Your task to perform on an android device: How big is the sun? Image 0: 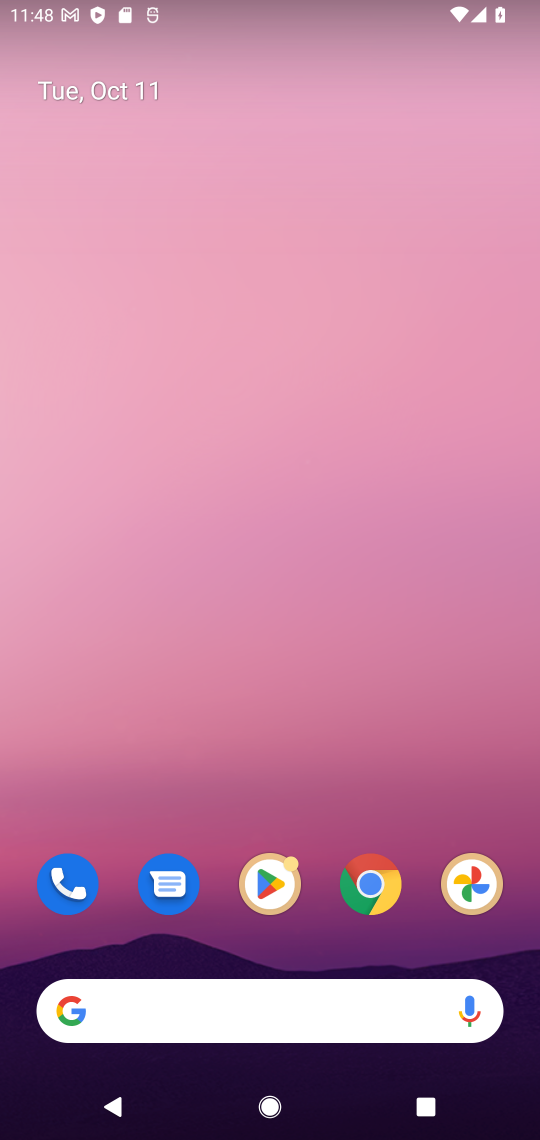
Step 0: drag from (313, 936) to (299, 167)
Your task to perform on an android device: How big is the sun? Image 1: 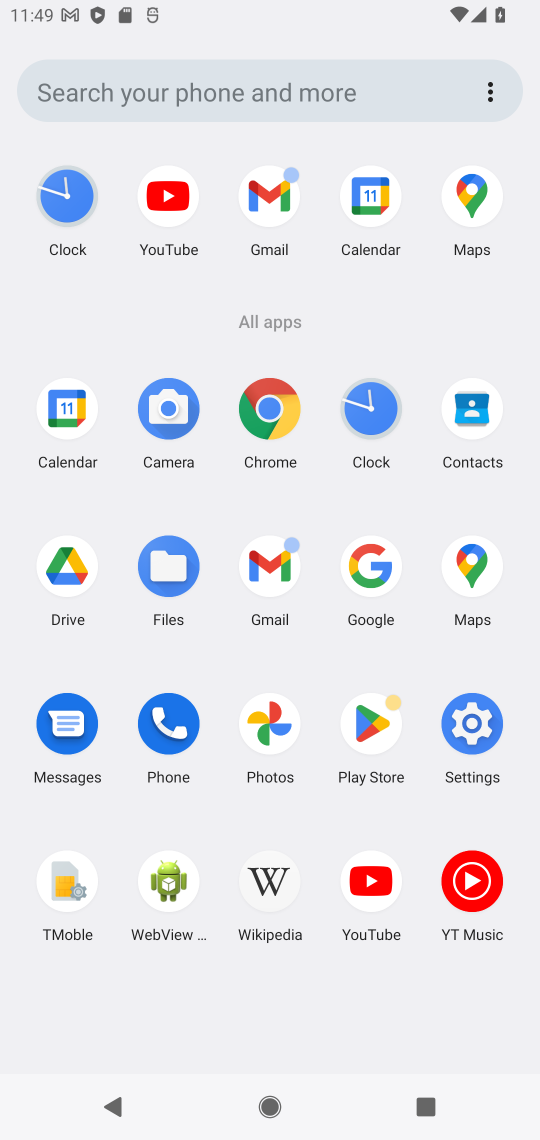
Step 1: click (366, 566)
Your task to perform on an android device: How big is the sun? Image 2: 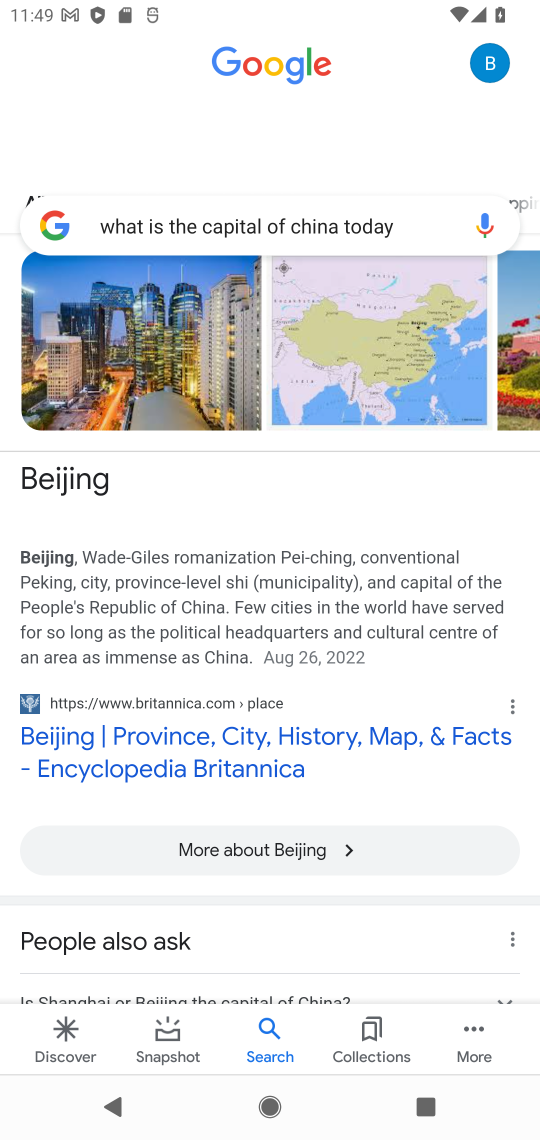
Step 2: click (284, 222)
Your task to perform on an android device: How big is the sun? Image 3: 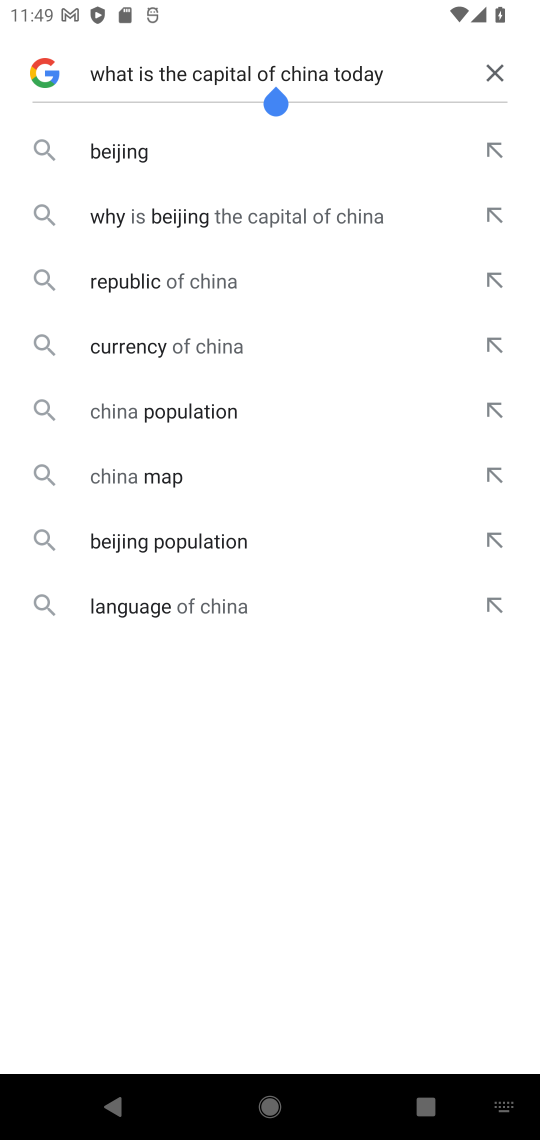
Step 3: click (495, 79)
Your task to perform on an android device: How big is the sun? Image 4: 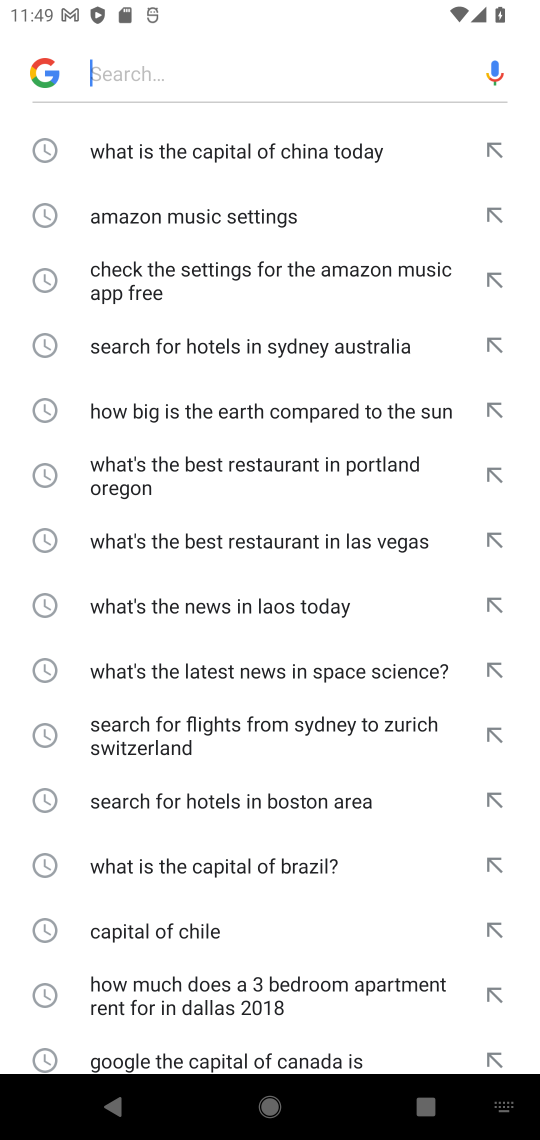
Step 4: type "How big is the sun?"
Your task to perform on an android device: How big is the sun? Image 5: 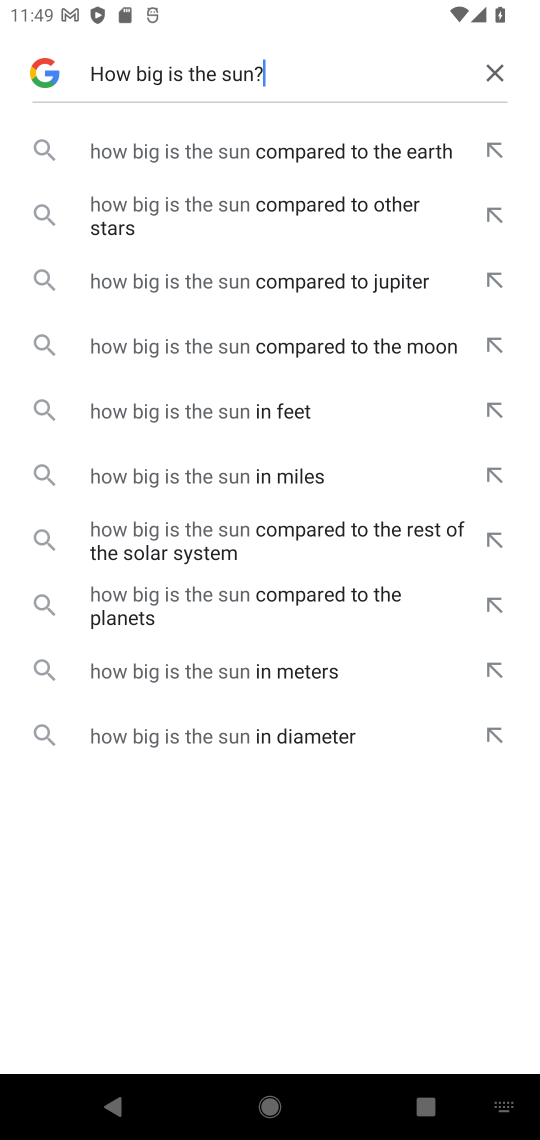
Step 5: click (357, 155)
Your task to perform on an android device: How big is the sun? Image 6: 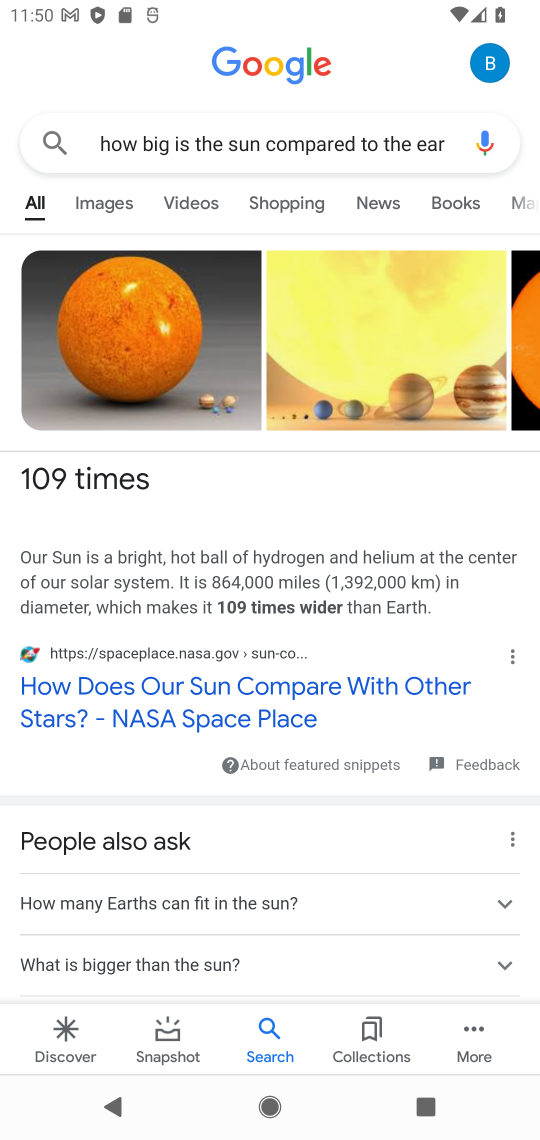
Step 6: task complete